Your task to perform on an android device: Set the phone to "Do not disturb". Image 0: 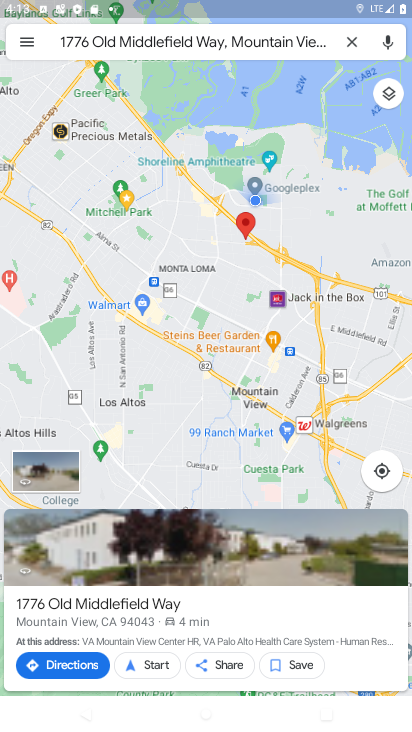
Step 0: press home button
Your task to perform on an android device: Set the phone to "Do not disturb". Image 1: 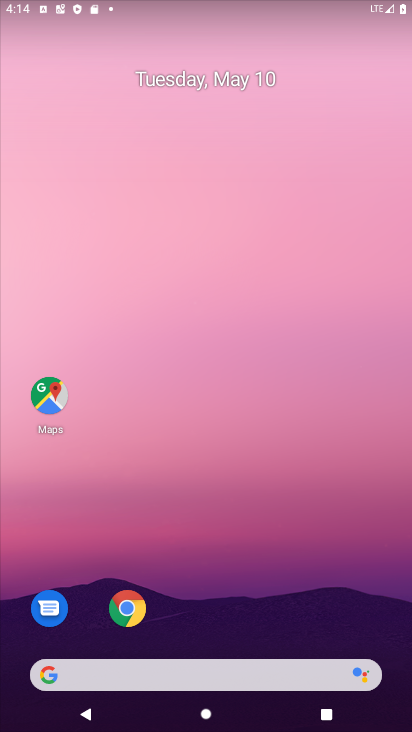
Step 1: drag from (361, 601) to (299, 34)
Your task to perform on an android device: Set the phone to "Do not disturb". Image 2: 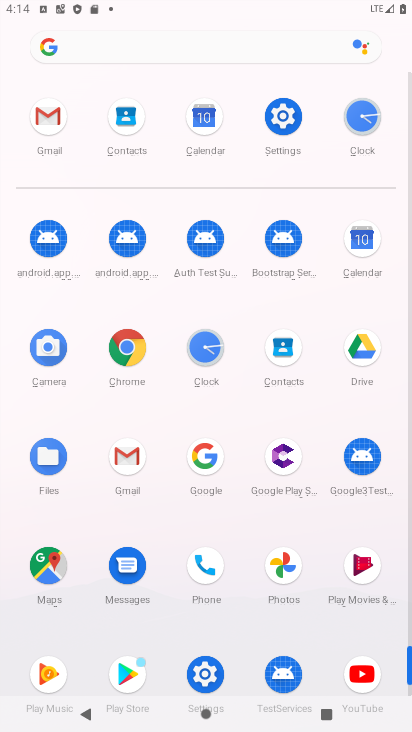
Step 2: click (208, 672)
Your task to perform on an android device: Set the phone to "Do not disturb". Image 3: 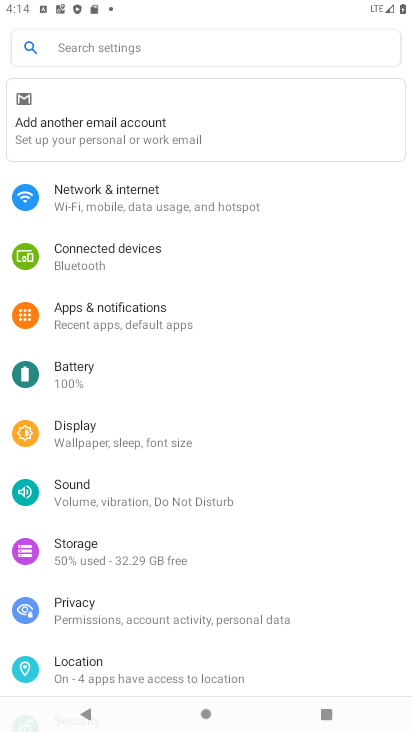
Step 3: click (103, 503)
Your task to perform on an android device: Set the phone to "Do not disturb". Image 4: 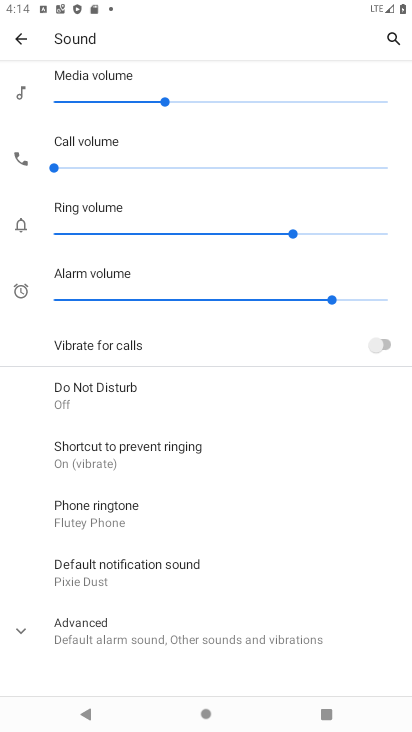
Step 4: click (22, 628)
Your task to perform on an android device: Set the phone to "Do not disturb". Image 5: 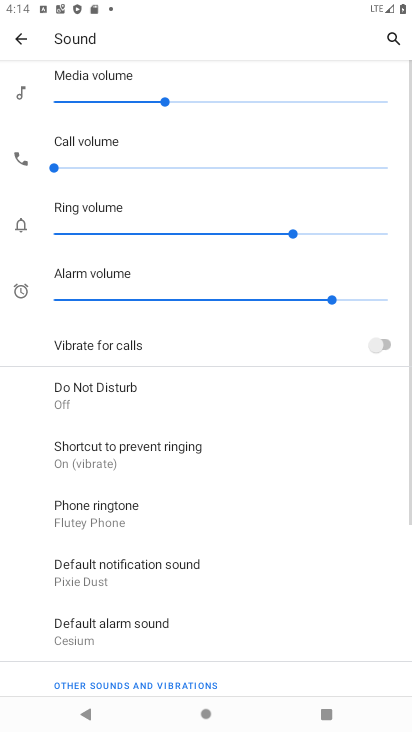
Step 5: task complete